Your task to perform on an android device: check out phone information Image 0: 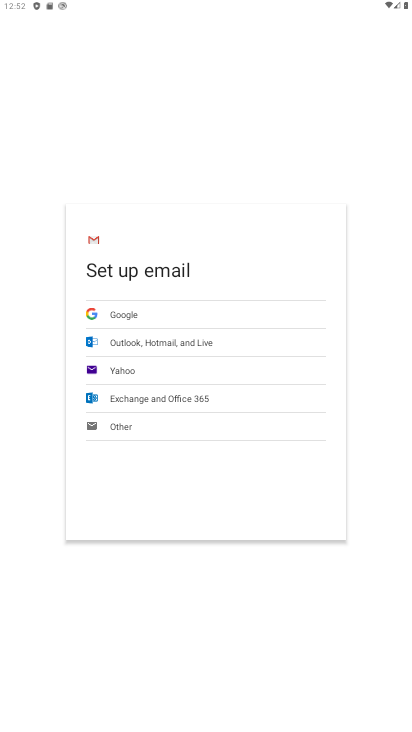
Step 0: press home button
Your task to perform on an android device: check out phone information Image 1: 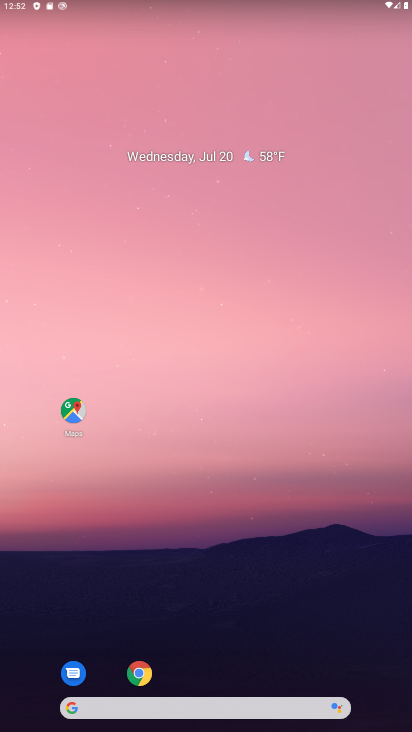
Step 1: drag from (267, 514) to (355, 69)
Your task to perform on an android device: check out phone information Image 2: 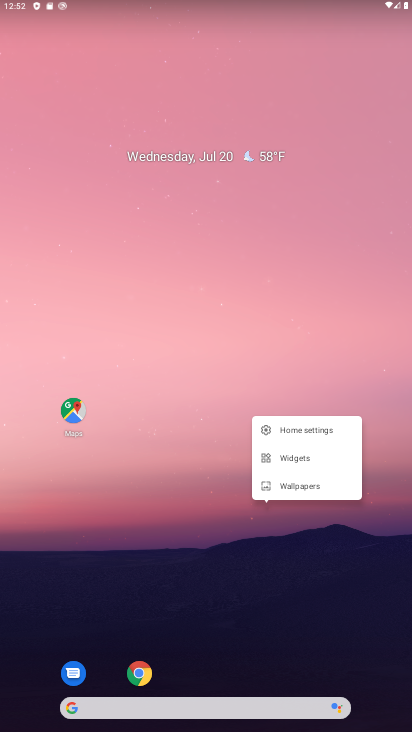
Step 2: click (277, 306)
Your task to perform on an android device: check out phone information Image 3: 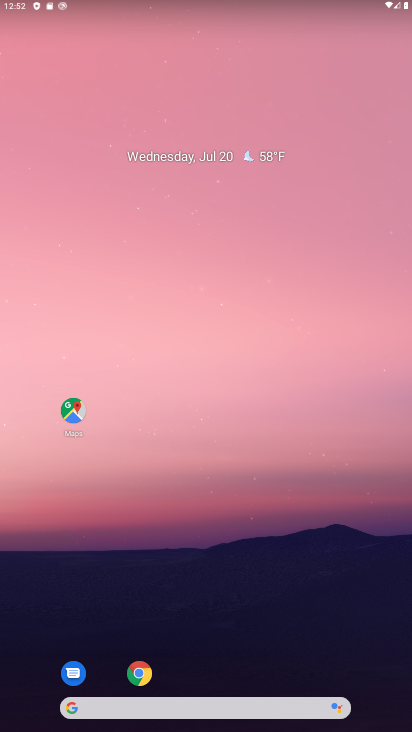
Step 3: drag from (217, 518) to (279, 26)
Your task to perform on an android device: check out phone information Image 4: 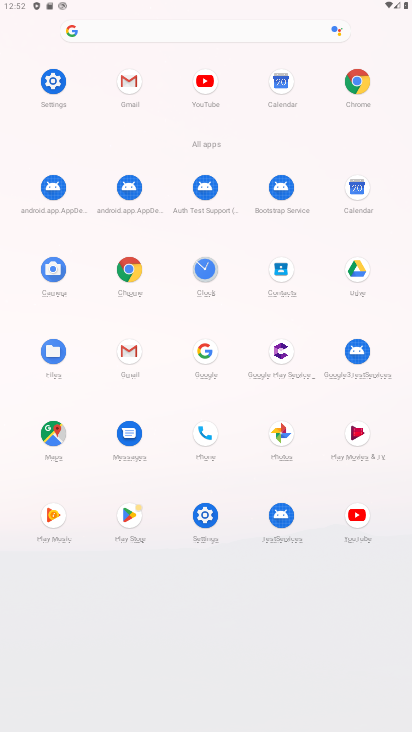
Step 4: click (200, 522)
Your task to perform on an android device: check out phone information Image 5: 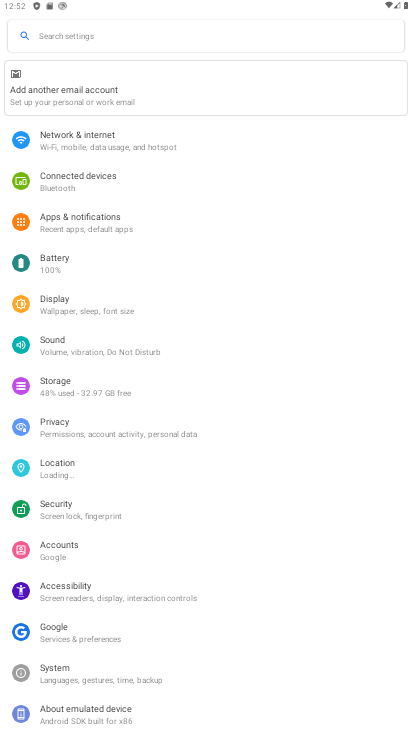
Step 5: drag from (200, 522) to (285, 1)
Your task to perform on an android device: check out phone information Image 6: 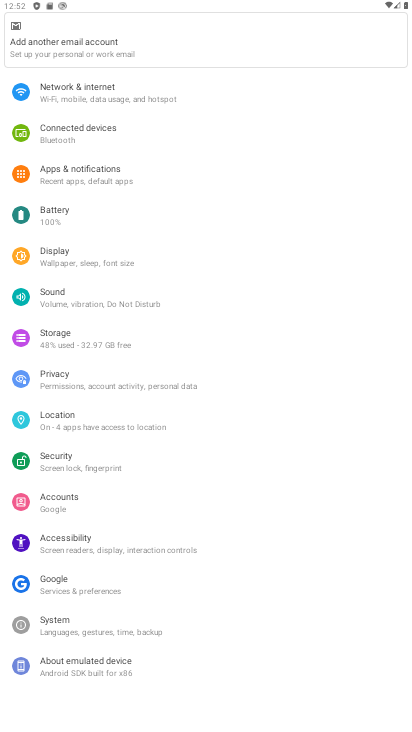
Step 6: click (82, 674)
Your task to perform on an android device: check out phone information Image 7: 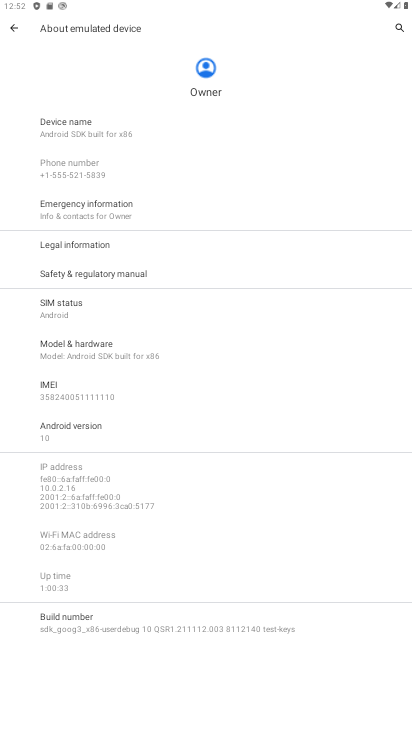
Step 7: task complete